Your task to perform on an android device: Go to network settings Image 0: 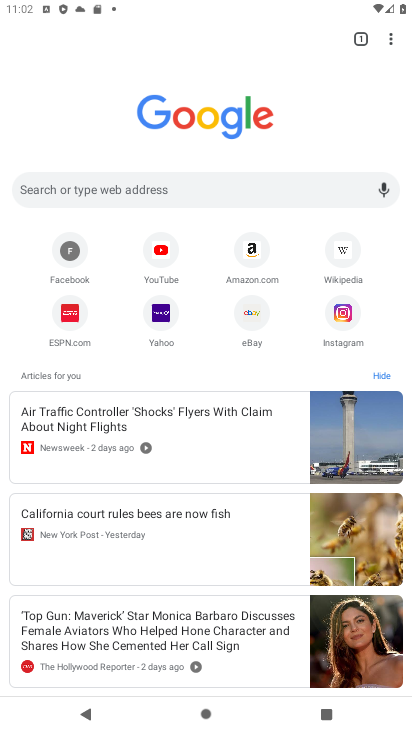
Step 0: task complete